Your task to perform on an android device: What's the US dollar exchange rate against the Brazilian Real? Image 0: 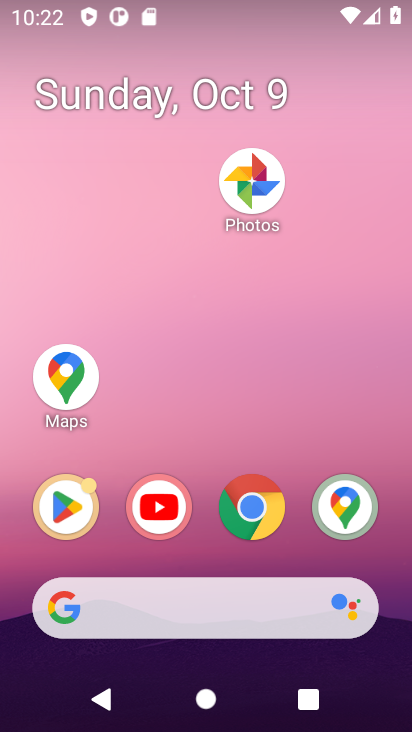
Step 0: drag from (192, 561) to (126, 0)
Your task to perform on an android device: What's the US dollar exchange rate against the Brazilian Real? Image 1: 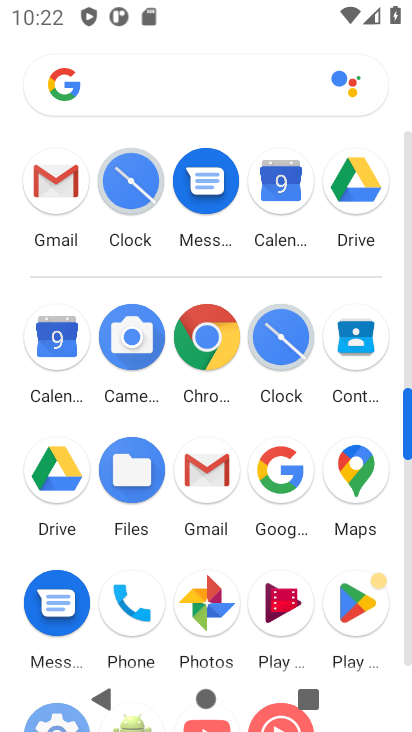
Step 1: click (211, 340)
Your task to perform on an android device: What's the US dollar exchange rate against the Brazilian Real? Image 2: 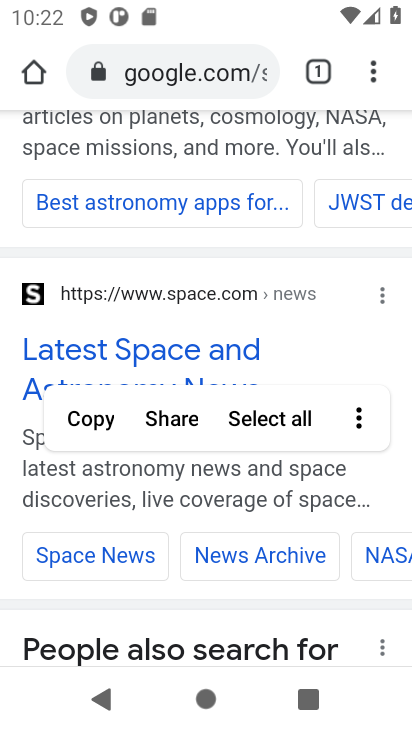
Step 2: click (221, 72)
Your task to perform on an android device: What's the US dollar exchange rate against the Brazilian Real? Image 3: 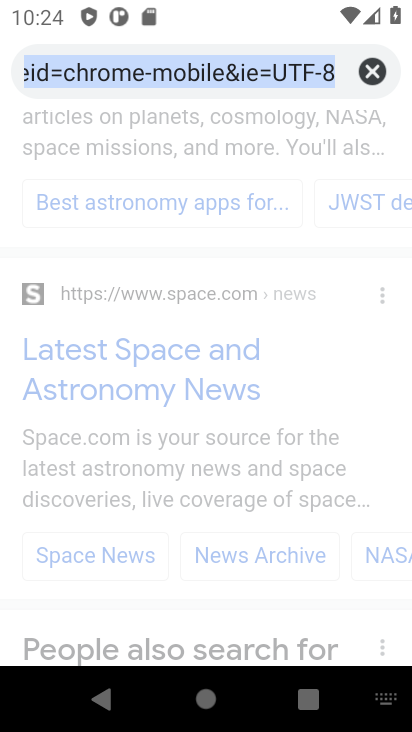
Step 3: type "What's the US dollar exchange rate against the  Brazillian Real?"
Your task to perform on an android device: What's the US dollar exchange rate against the Brazilian Real? Image 4: 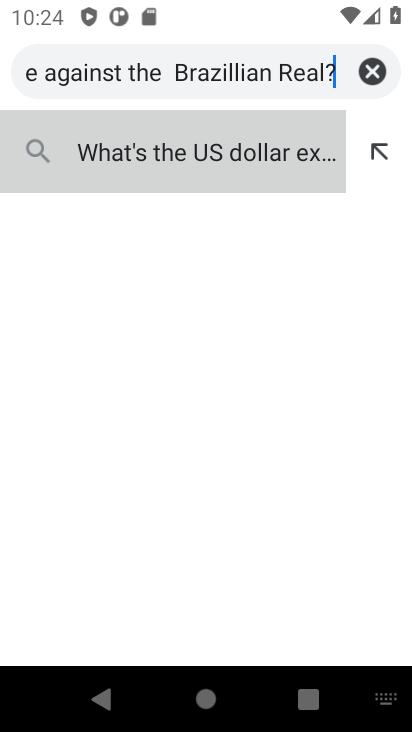
Step 4: press enter
Your task to perform on an android device: What's the US dollar exchange rate against the Brazilian Real? Image 5: 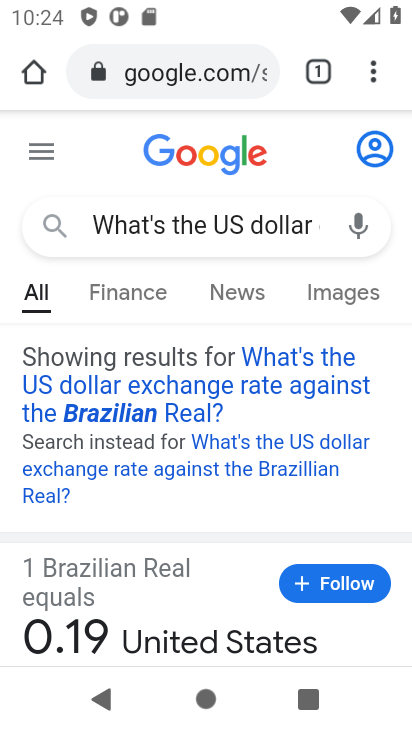
Step 5: task complete